Your task to perform on an android device: Open the stopwatch Image 0: 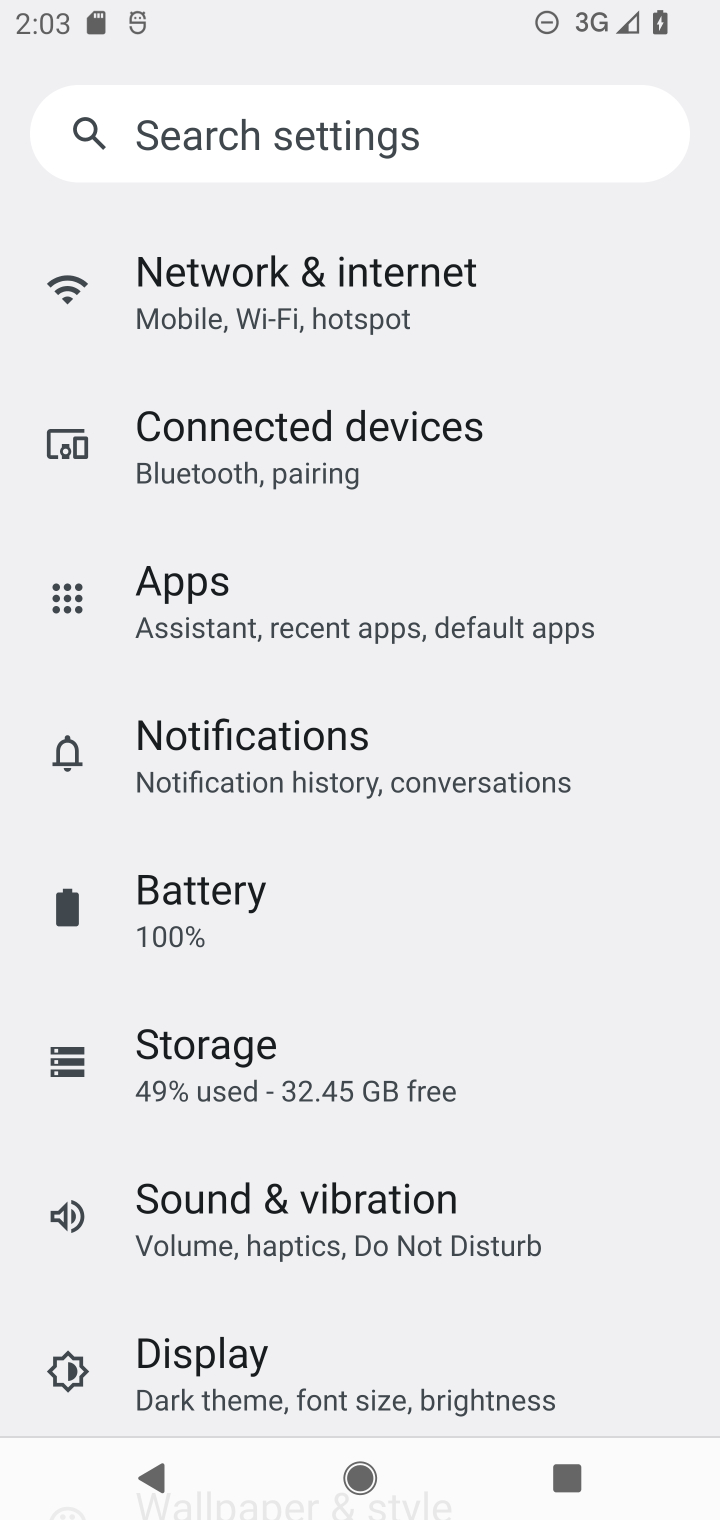
Step 0: press home button
Your task to perform on an android device: Open the stopwatch Image 1: 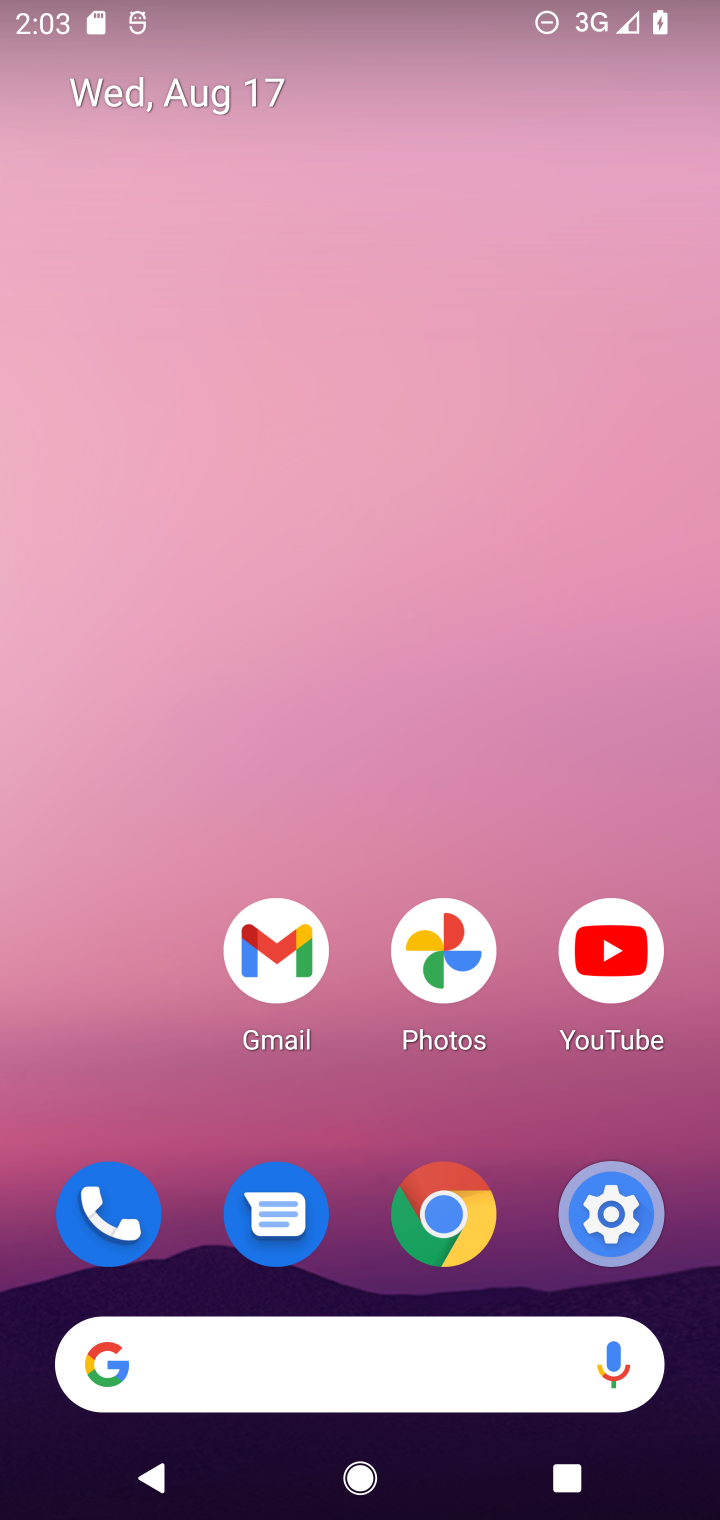
Step 1: drag from (356, 424) to (360, 62)
Your task to perform on an android device: Open the stopwatch Image 2: 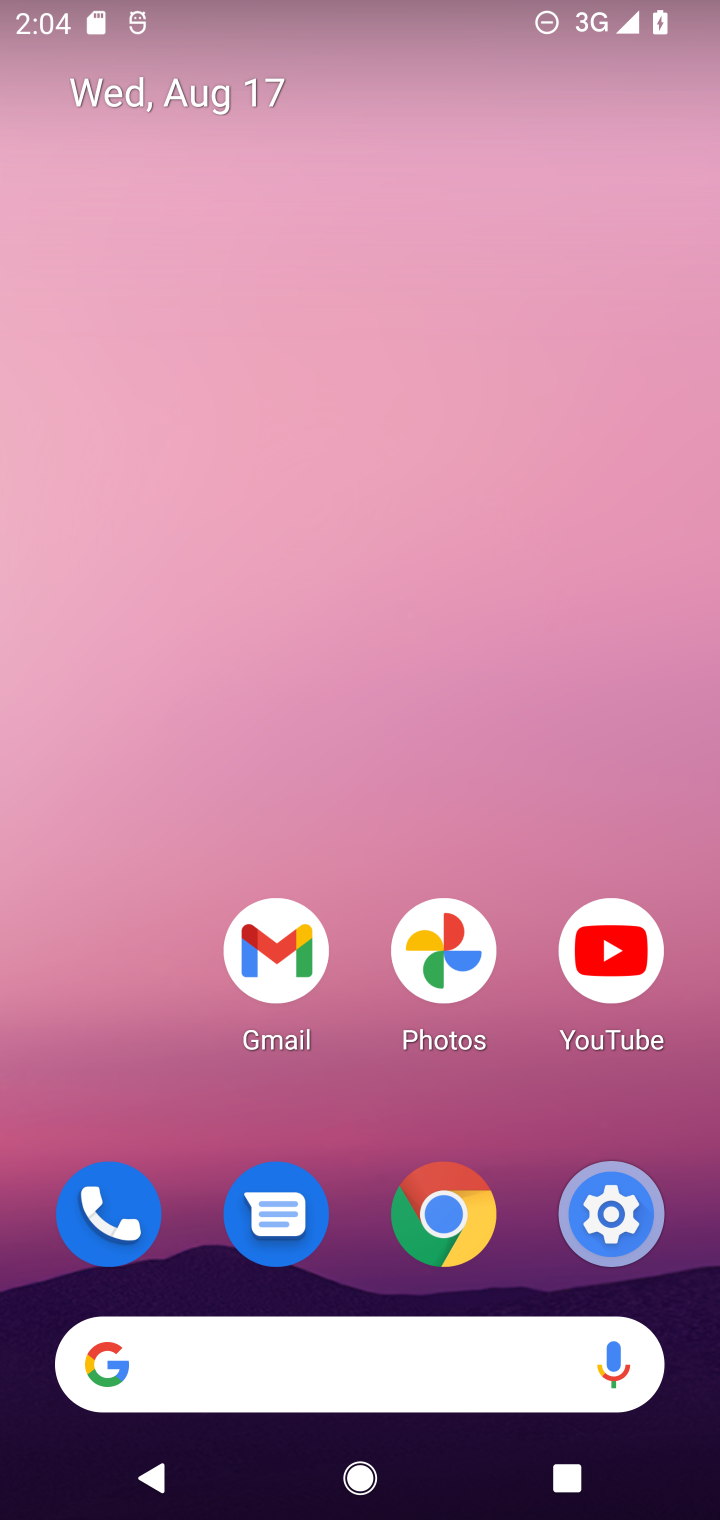
Step 2: drag from (363, 1269) to (298, 453)
Your task to perform on an android device: Open the stopwatch Image 3: 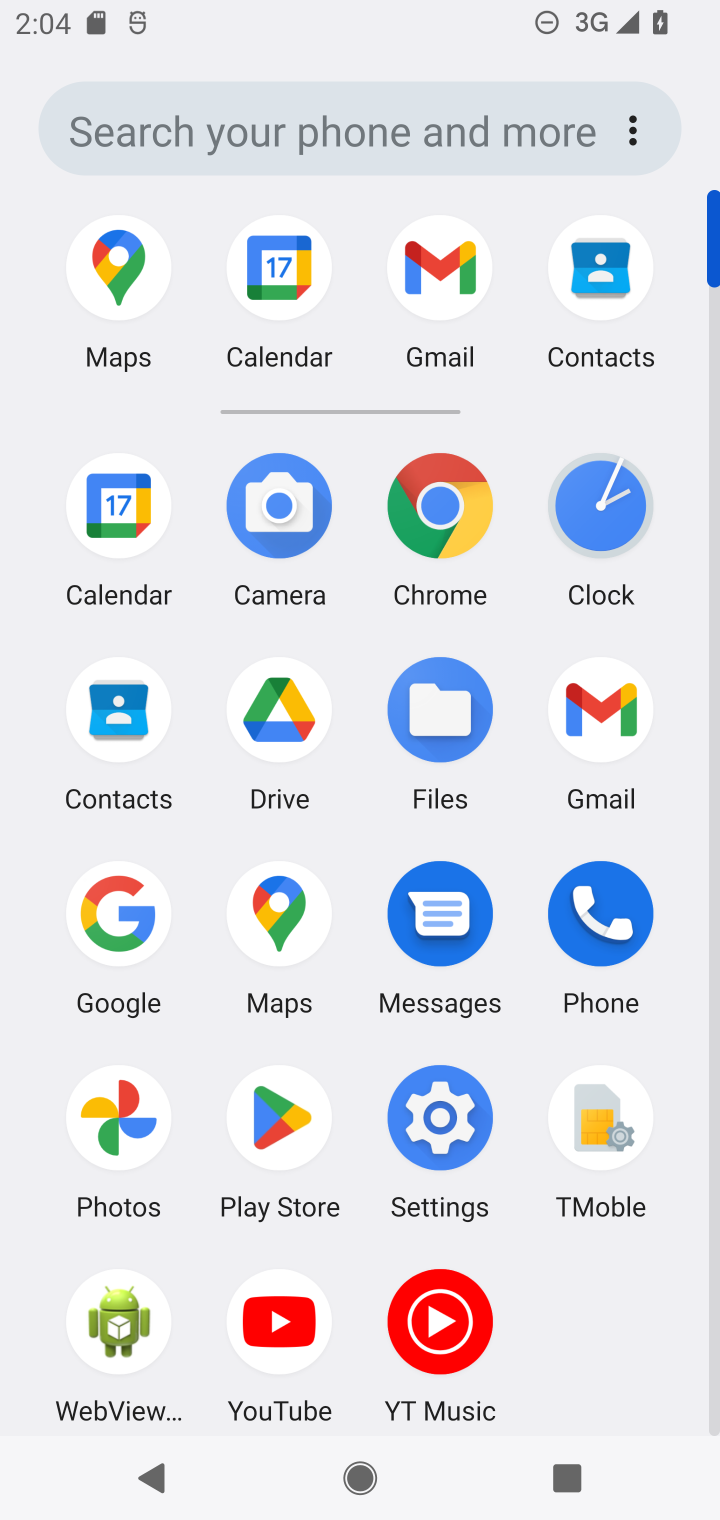
Step 3: click (615, 497)
Your task to perform on an android device: Open the stopwatch Image 4: 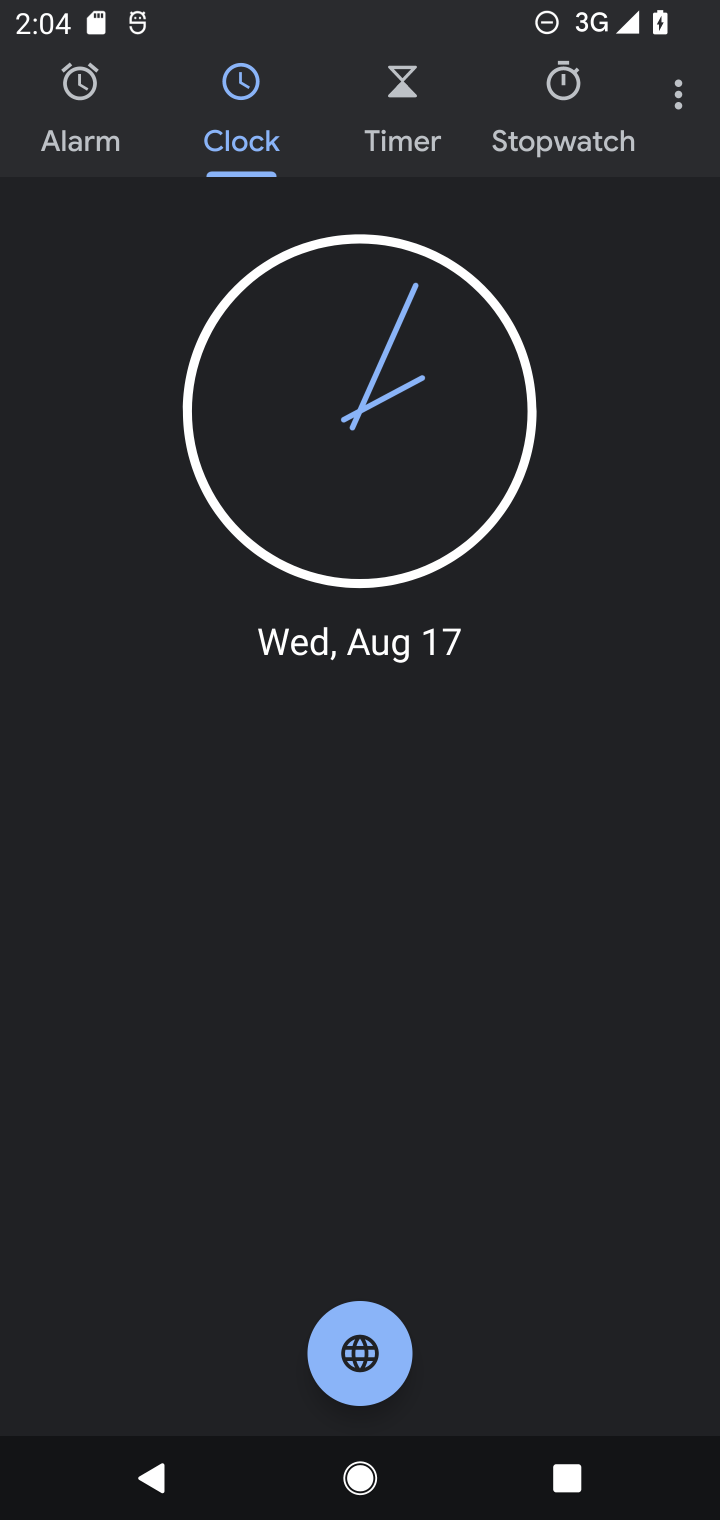
Step 4: click (569, 69)
Your task to perform on an android device: Open the stopwatch Image 5: 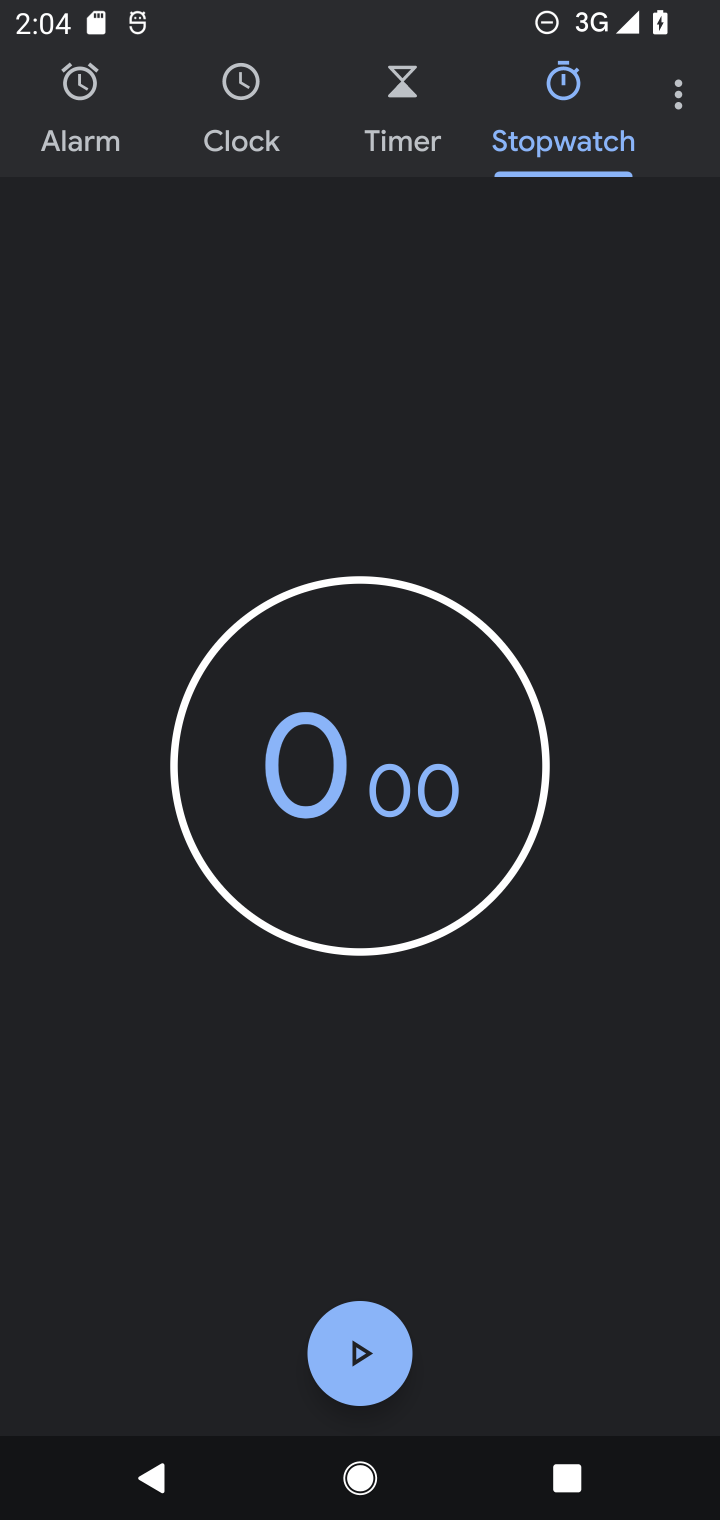
Step 5: task complete